Your task to perform on an android device: Search for Mexican restaurants on Maps Image 0: 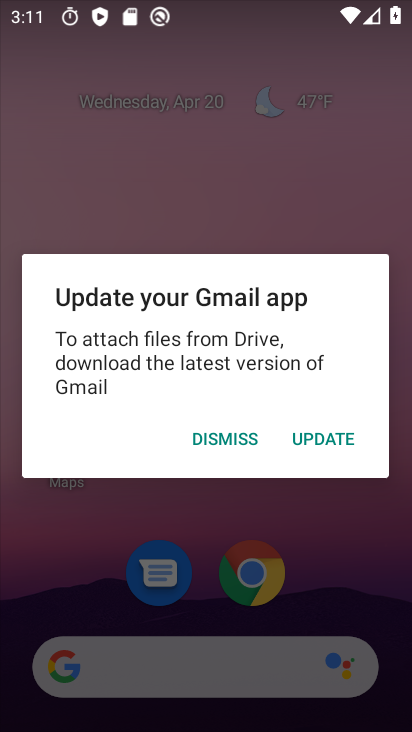
Step 0: press home button
Your task to perform on an android device: Search for Mexican restaurants on Maps Image 1: 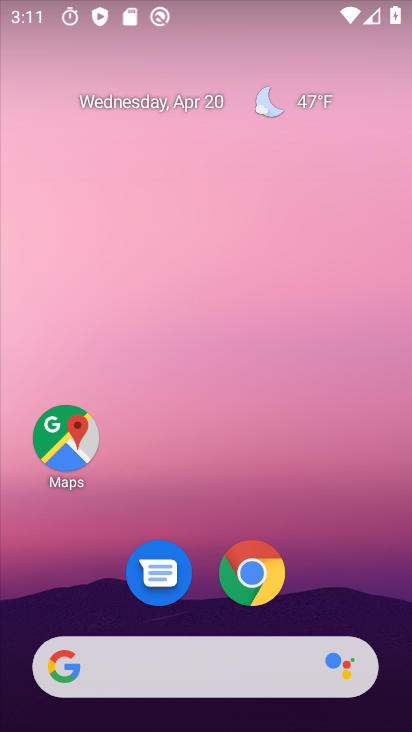
Step 1: drag from (204, 705) to (204, 131)
Your task to perform on an android device: Search for Mexican restaurants on Maps Image 2: 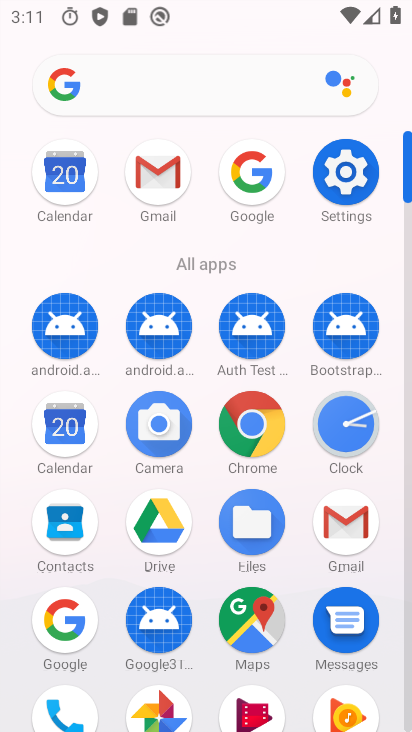
Step 2: click (247, 618)
Your task to perform on an android device: Search for Mexican restaurants on Maps Image 3: 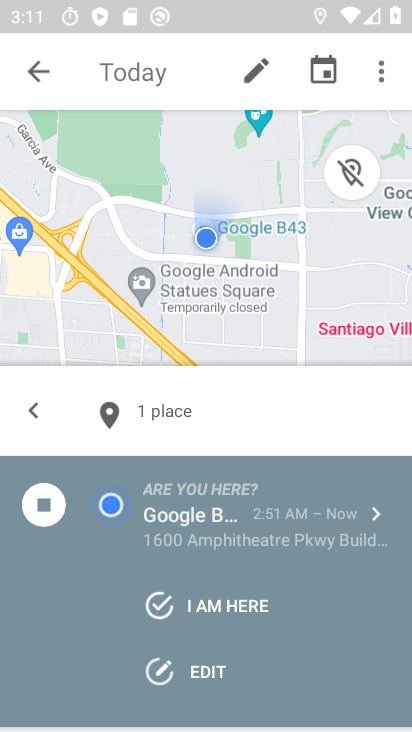
Step 3: click (42, 63)
Your task to perform on an android device: Search for Mexican restaurants on Maps Image 4: 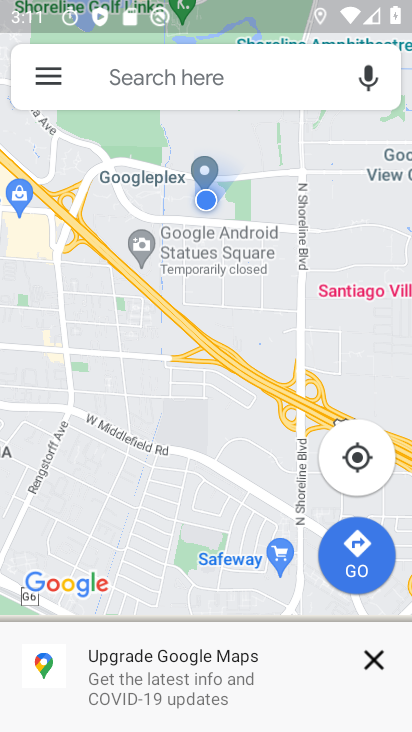
Step 4: click (198, 76)
Your task to perform on an android device: Search for Mexican restaurants on Maps Image 5: 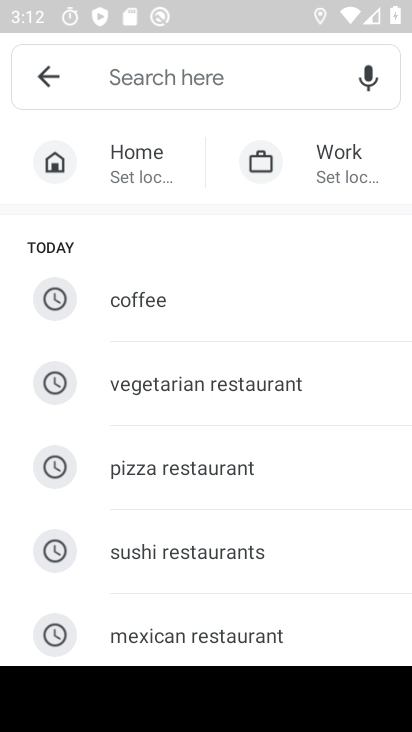
Step 5: type "Mexican restaurants"
Your task to perform on an android device: Search for Mexican restaurants on Maps Image 6: 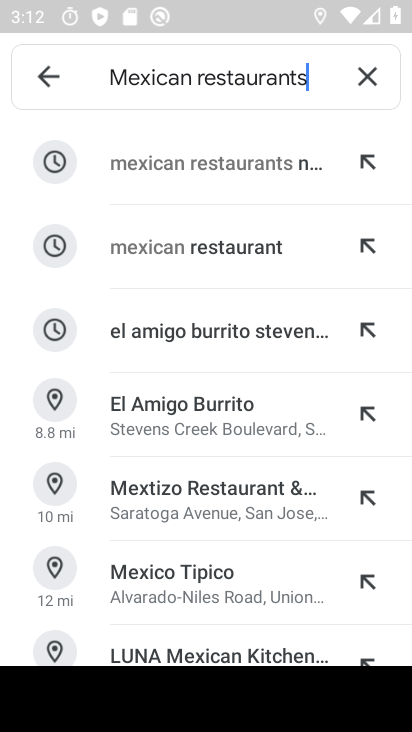
Step 6: click (234, 250)
Your task to perform on an android device: Search for Mexican restaurants on Maps Image 7: 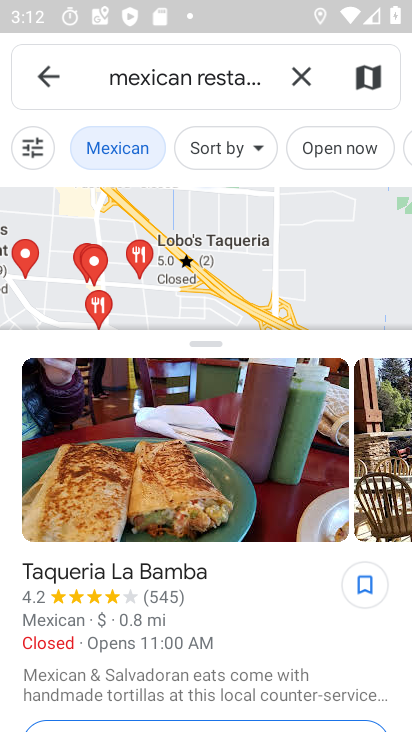
Step 7: task complete